Your task to perform on an android device: refresh tabs in the chrome app Image 0: 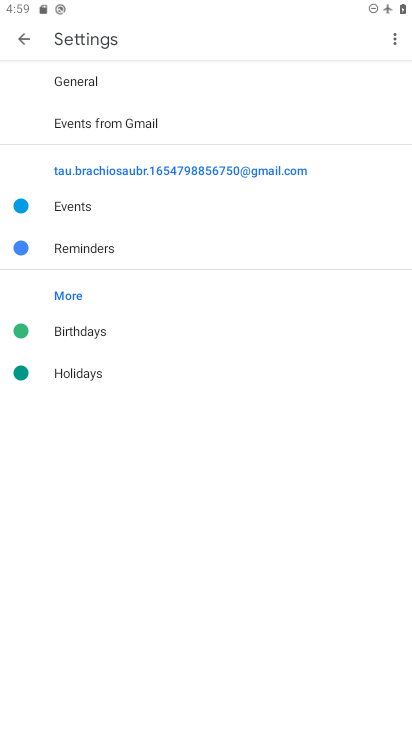
Step 0: press home button
Your task to perform on an android device: refresh tabs in the chrome app Image 1: 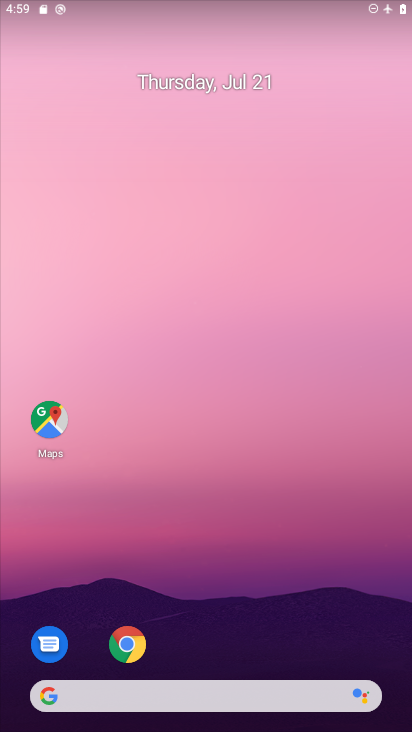
Step 1: click (127, 653)
Your task to perform on an android device: refresh tabs in the chrome app Image 2: 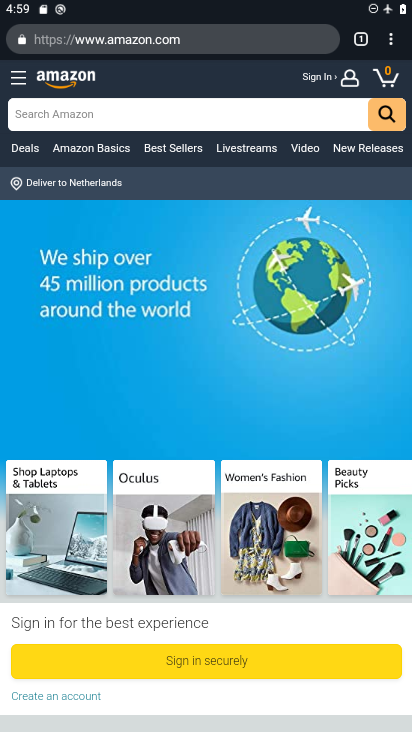
Step 2: click (390, 41)
Your task to perform on an android device: refresh tabs in the chrome app Image 3: 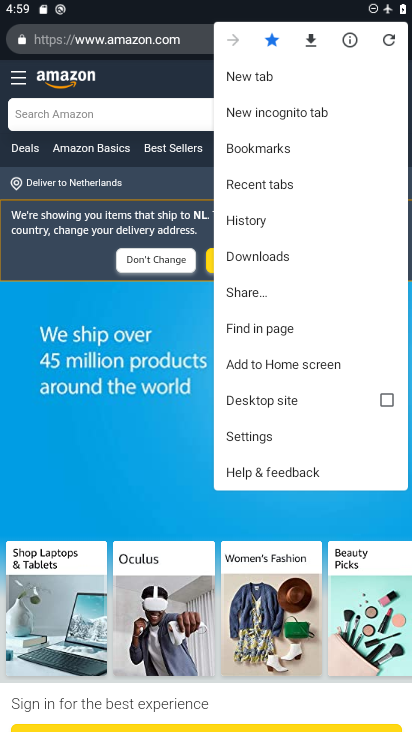
Step 3: click (397, 36)
Your task to perform on an android device: refresh tabs in the chrome app Image 4: 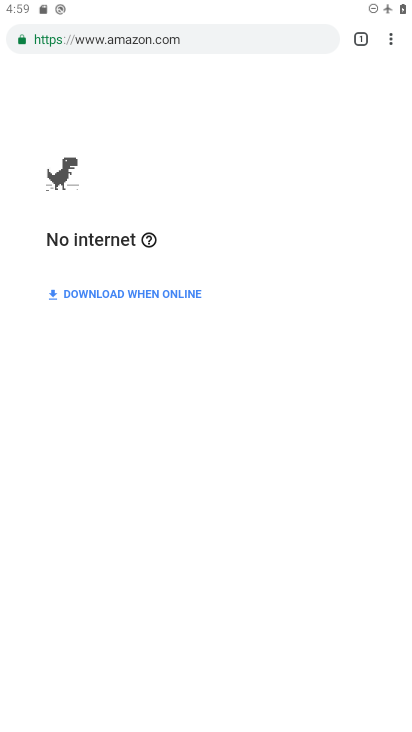
Step 4: task complete